Your task to perform on an android device: Open calendar and show me the third week of next month Image 0: 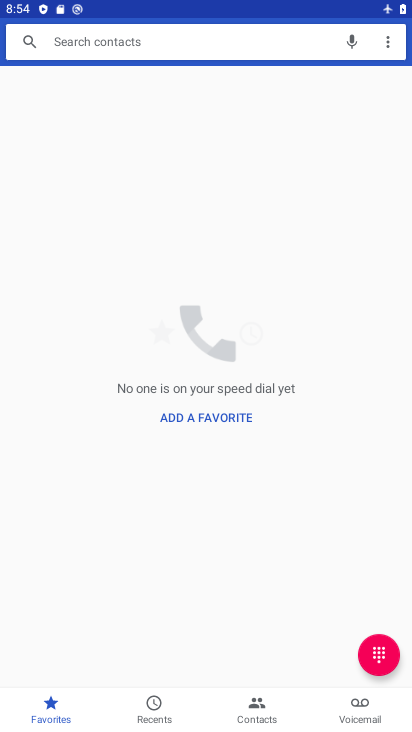
Step 0: press home button
Your task to perform on an android device: Open calendar and show me the third week of next month Image 1: 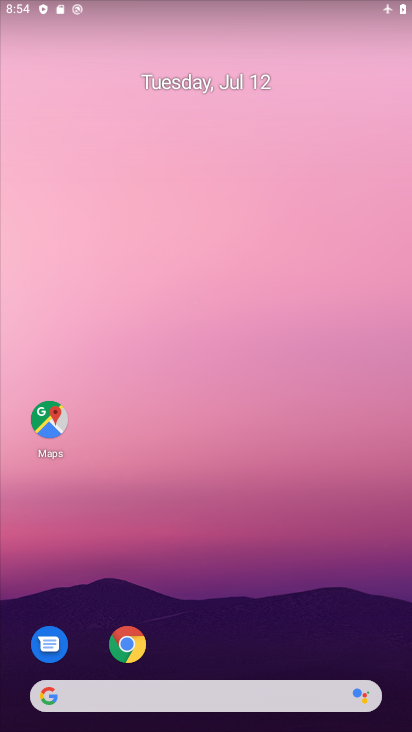
Step 1: drag from (204, 652) to (193, 159)
Your task to perform on an android device: Open calendar and show me the third week of next month Image 2: 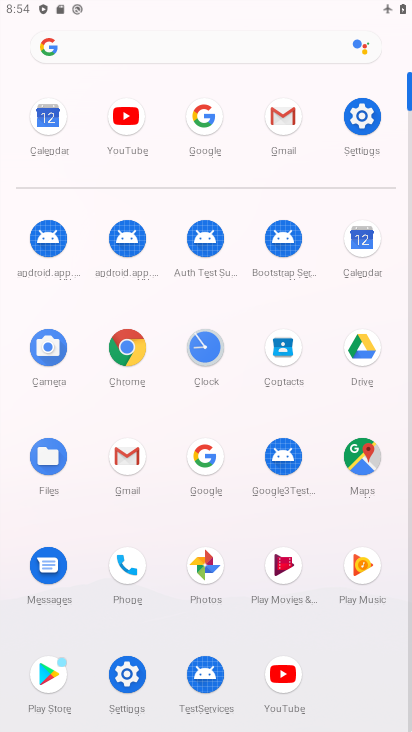
Step 2: click (339, 251)
Your task to perform on an android device: Open calendar and show me the third week of next month Image 3: 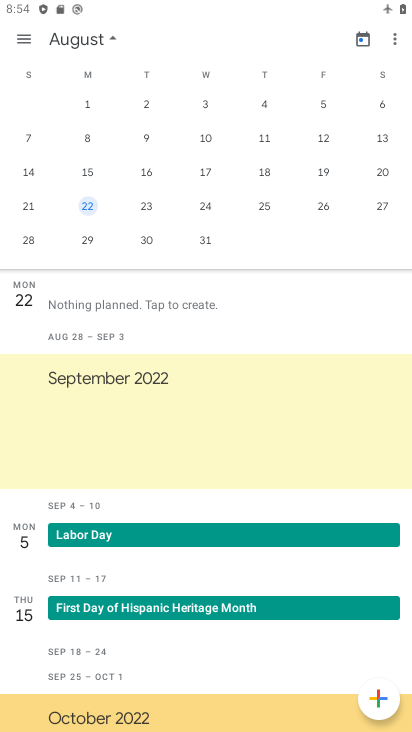
Step 3: click (28, 166)
Your task to perform on an android device: Open calendar and show me the third week of next month Image 4: 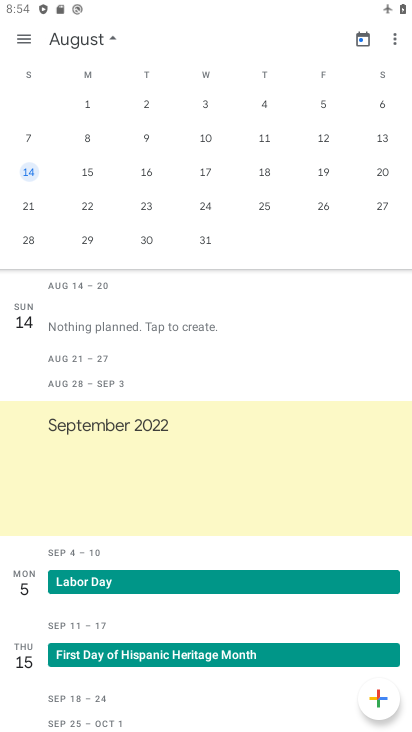
Step 4: task complete